Your task to perform on an android device: See recent photos Image 0: 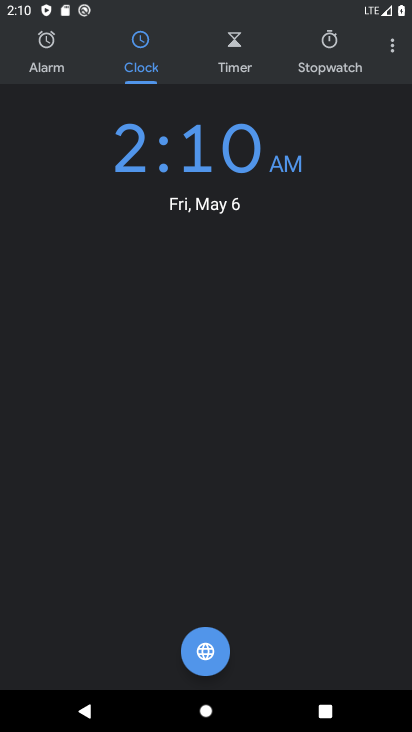
Step 0: press home button
Your task to perform on an android device: See recent photos Image 1: 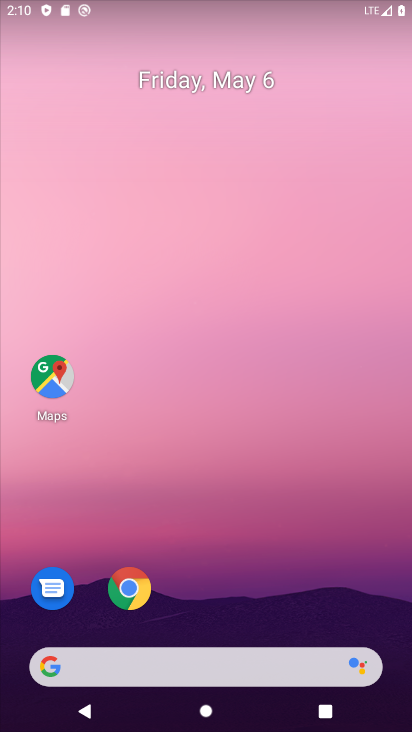
Step 1: drag from (341, 590) to (354, 116)
Your task to perform on an android device: See recent photos Image 2: 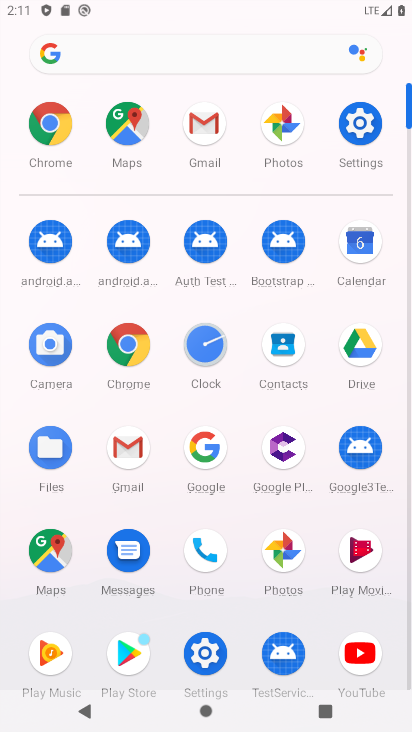
Step 2: click (289, 561)
Your task to perform on an android device: See recent photos Image 3: 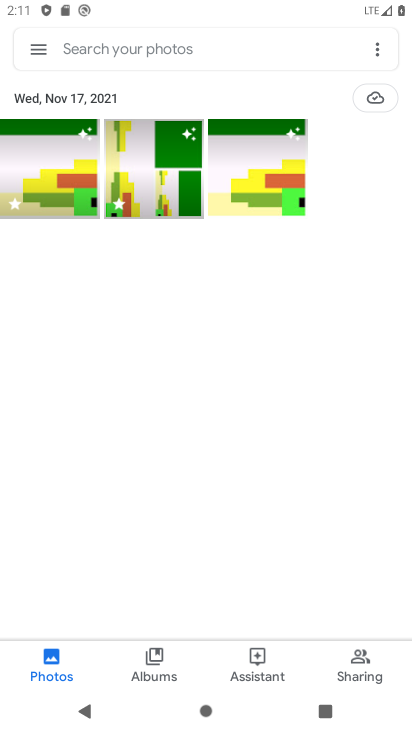
Step 3: task complete